Your task to perform on an android device: Open the web browser Image 0: 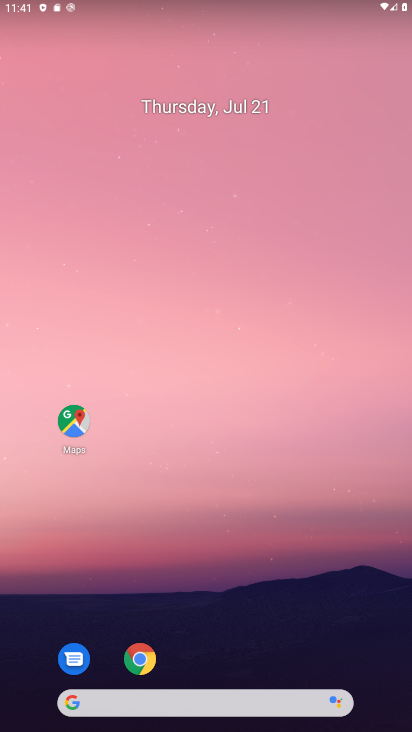
Step 0: click (146, 670)
Your task to perform on an android device: Open the web browser Image 1: 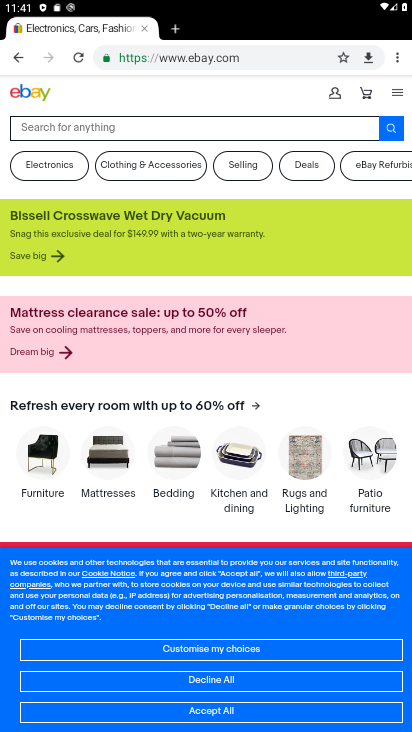
Step 1: click (404, 54)
Your task to perform on an android device: Open the web browser Image 2: 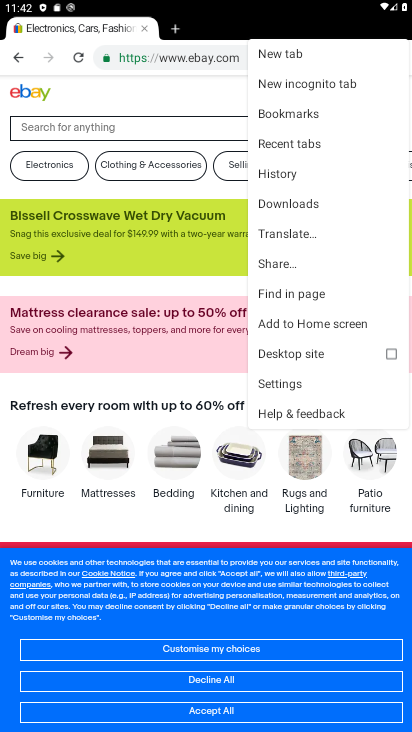
Step 2: task complete